Your task to perform on an android device: Open settings on Google Maps Image 0: 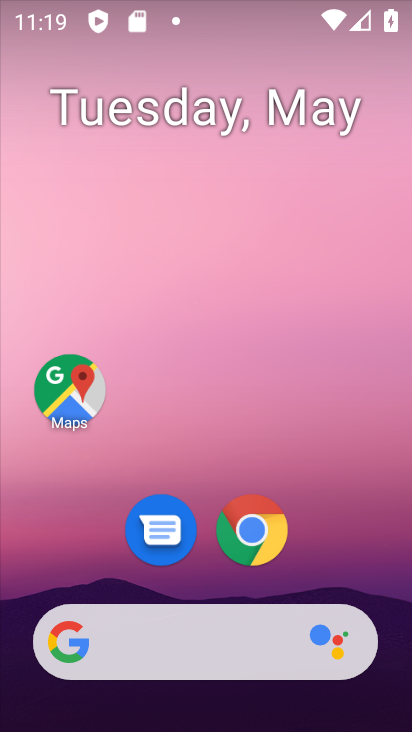
Step 0: drag from (204, 592) to (206, 12)
Your task to perform on an android device: Open settings on Google Maps Image 1: 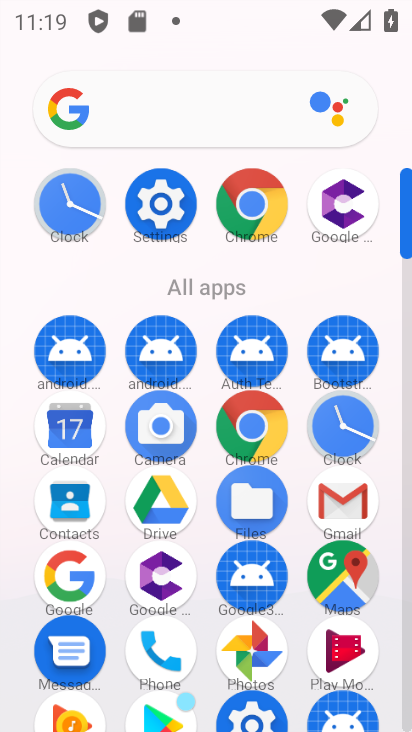
Step 1: click (324, 591)
Your task to perform on an android device: Open settings on Google Maps Image 2: 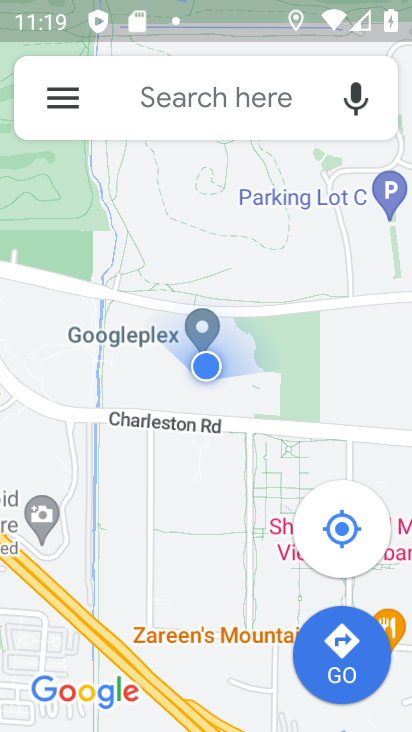
Step 2: click (265, 549)
Your task to perform on an android device: Open settings on Google Maps Image 3: 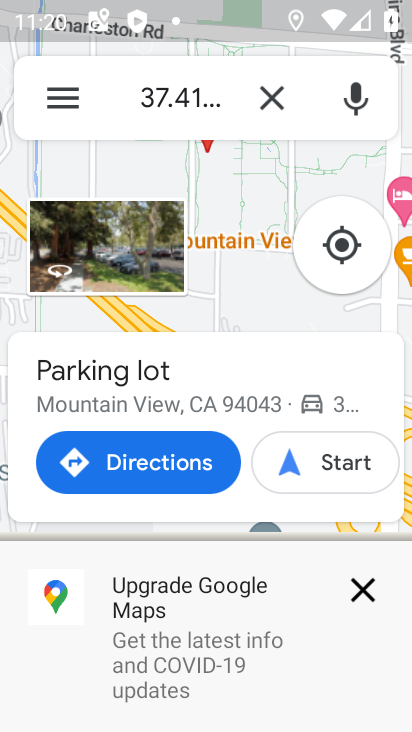
Step 3: click (53, 88)
Your task to perform on an android device: Open settings on Google Maps Image 4: 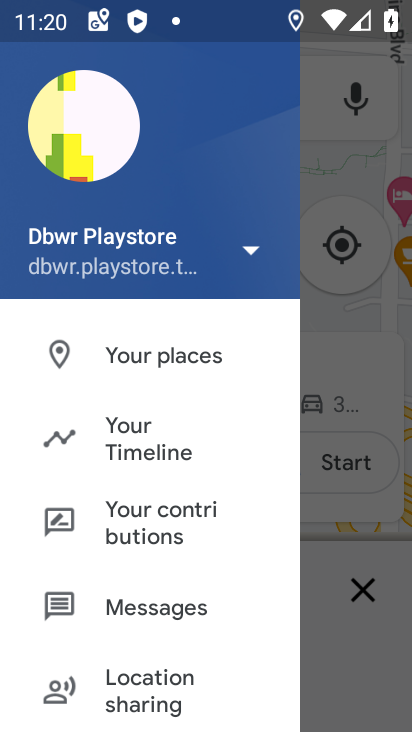
Step 4: click (174, 435)
Your task to perform on an android device: Open settings on Google Maps Image 5: 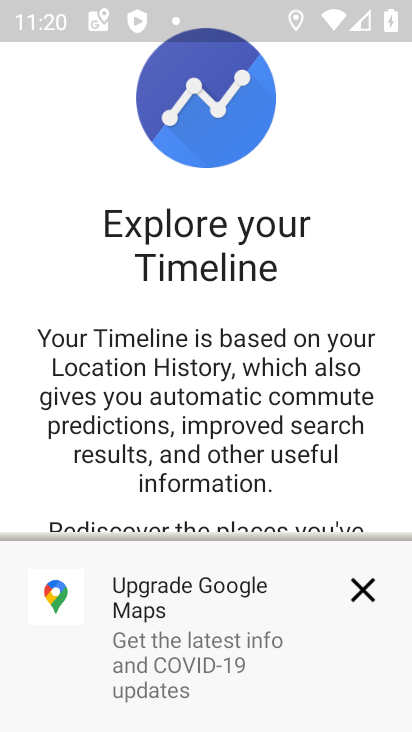
Step 5: click (362, 589)
Your task to perform on an android device: Open settings on Google Maps Image 6: 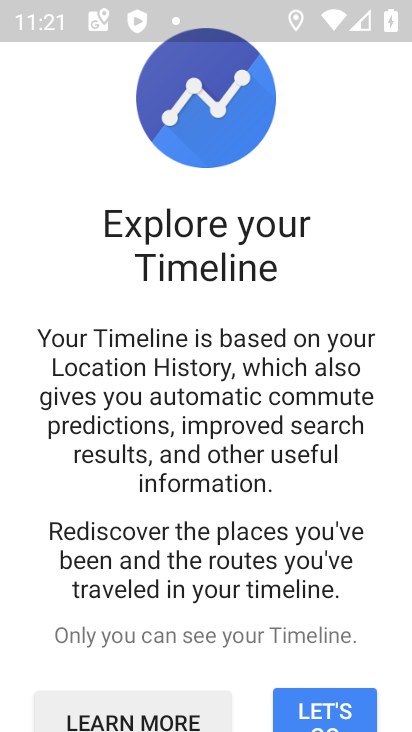
Step 6: drag from (265, 628) to (317, 174)
Your task to perform on an android device: Open settings on Google Maps Image 7: 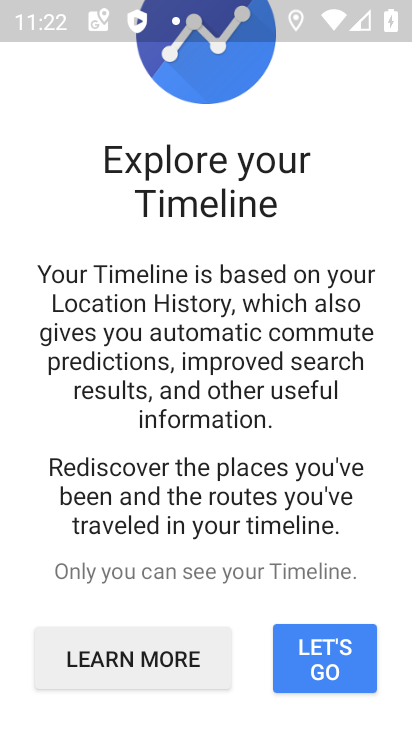
Step 7: click (329, 669)
Your task to perform on an android device: Open settings on Google Maps Image 8: 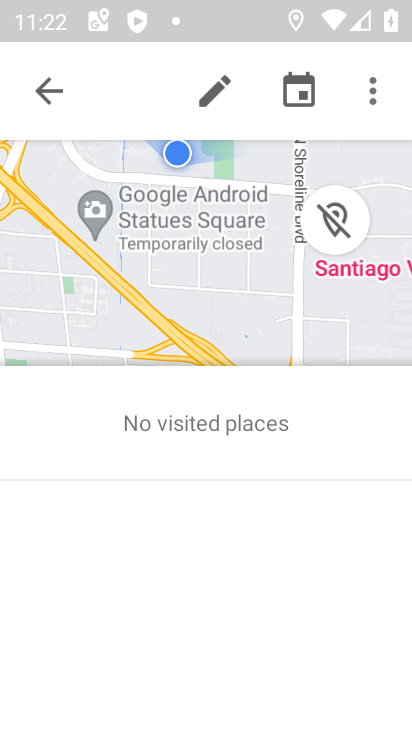
Step 8: click (379, 96)
Your task to perform on an android device: Open settings on Google Maps Image 9: 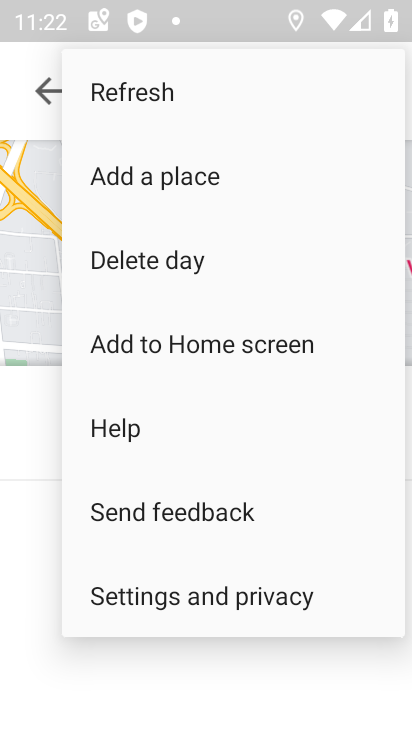
Step 9: click (212, 590)
Your task to perform on an android device: Open settings on Google Maps Image 10: 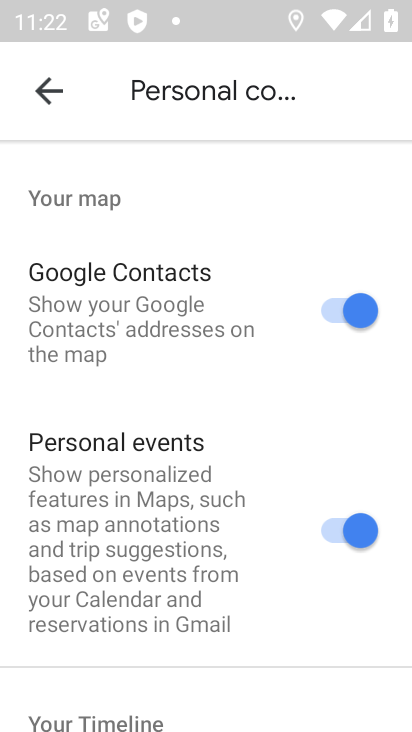
Step 10: task complete